Your task to perform on an android device: toggle notifications settings in the gmail app Image 0: 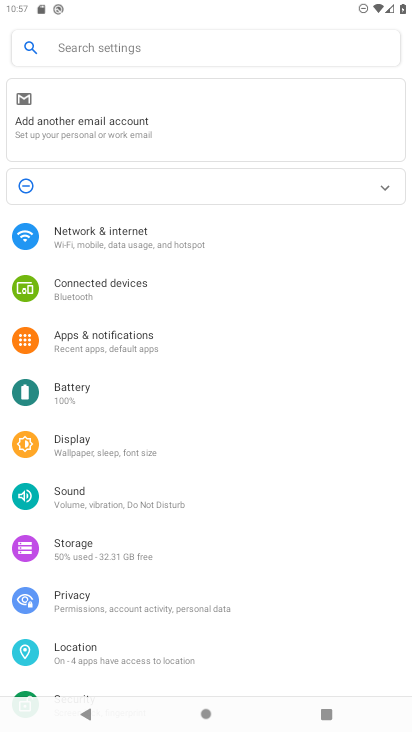
Step 0: press home button
Your task to perform on an android device: toggle notifications settings in the gmail app Image 1: 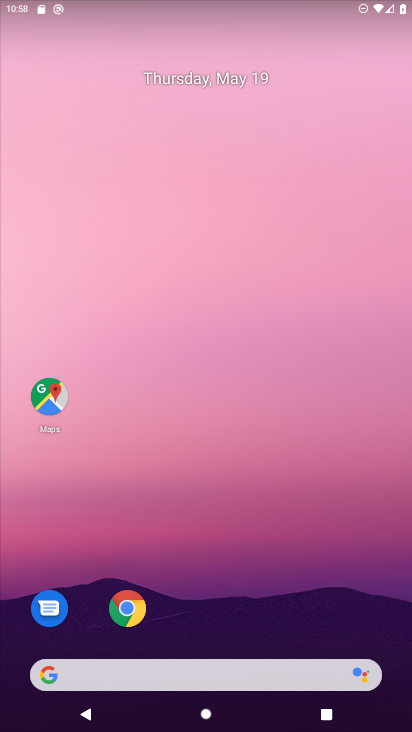
Step 1: drag from (406, 706) to (336, 233)
Your task to perform on an android device: toggle notifications settings in the gmail app Image 2: 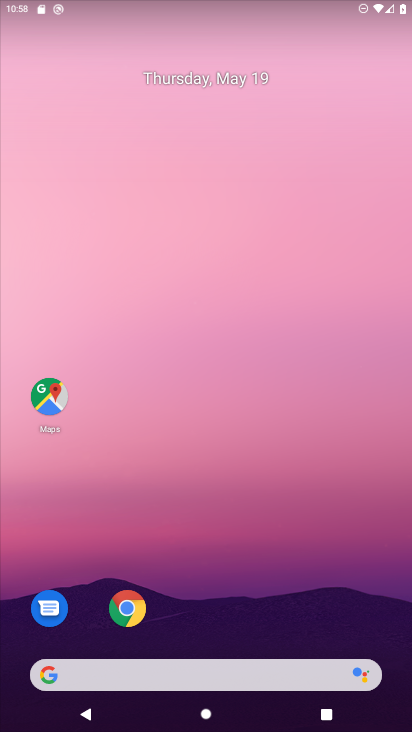
Step 2: drag from (394, 705) to (357, 166)
Your task to perform on an android device: toggle notifications settings in the gmail app Image 3: 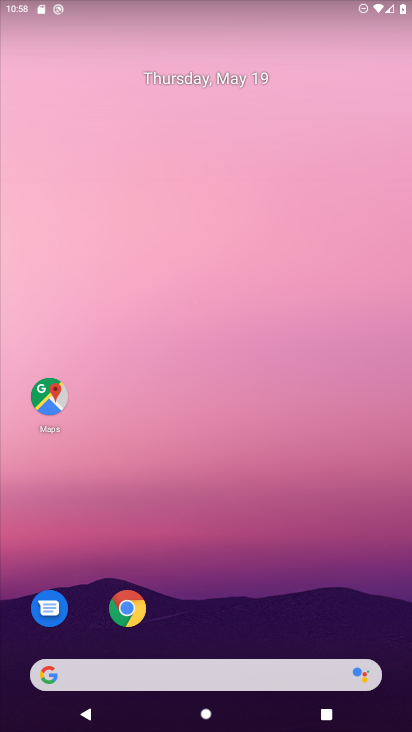
Step 3: drag from (394, 711) to (381, 159)
Your task to perform on an android device: toggle notifications settings in the gmail app Image 4: 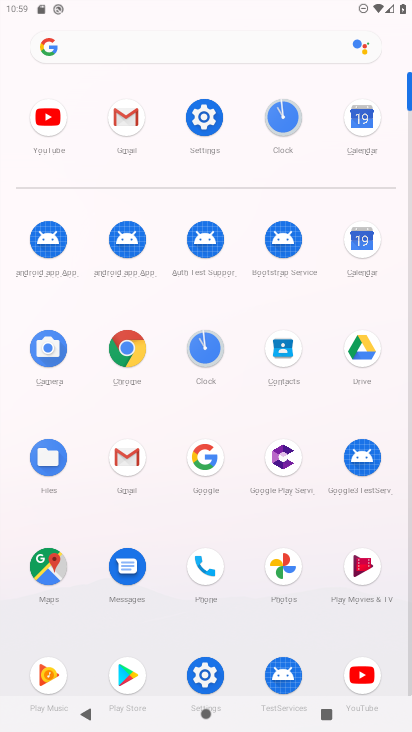
Step 4: click (192, 457)
Your task to perform on an android device: toggle notifications settings in the gmail app Image 5: 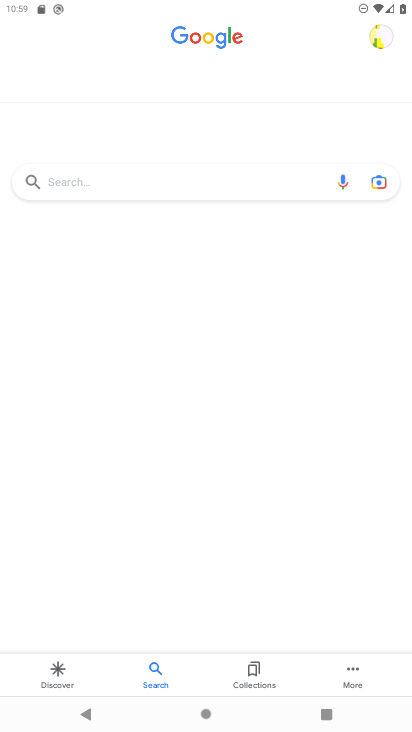
Step 5: press back button
Your task to perform on an android device: toggle notifications settings in the gmail app Image 6: 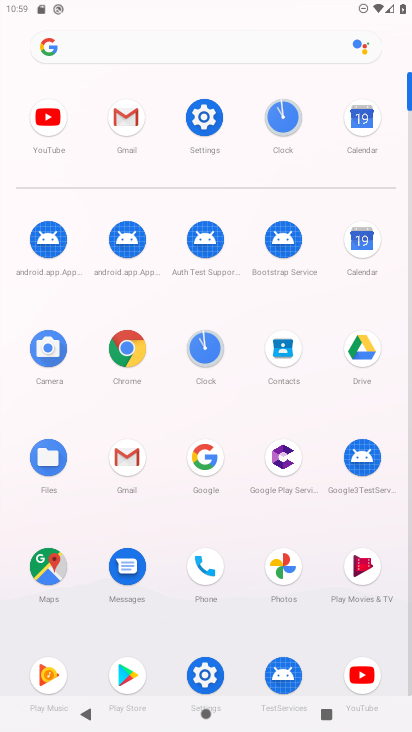
Step 6: click (124, 119)
Your task to perform on an android device: toggle notifications settings in the gmail app Image 7: 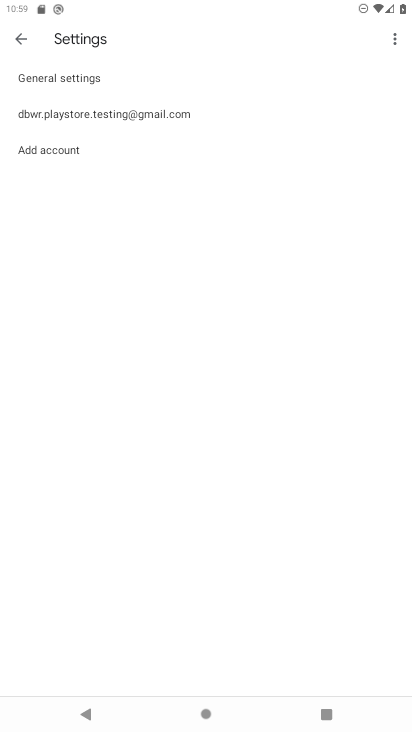
Step 7: click (30, 79)
Your task to perform on an android device: toggle notifications settings in the gmail app Image 8: 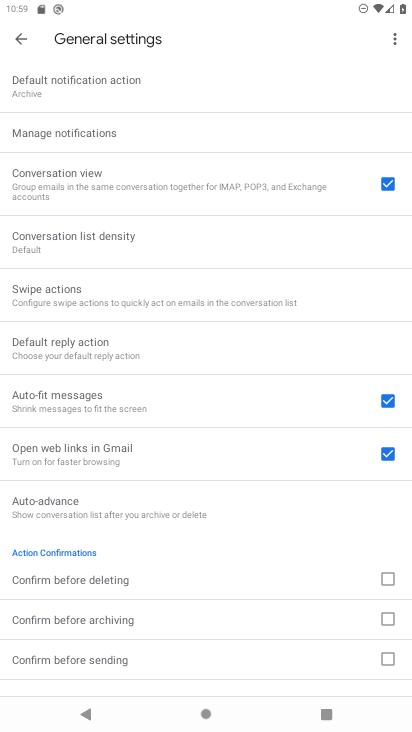
Step 8: click (47, 135)
Your task to perform on an android device: toggle notifications settings in the gmail app Image 9: 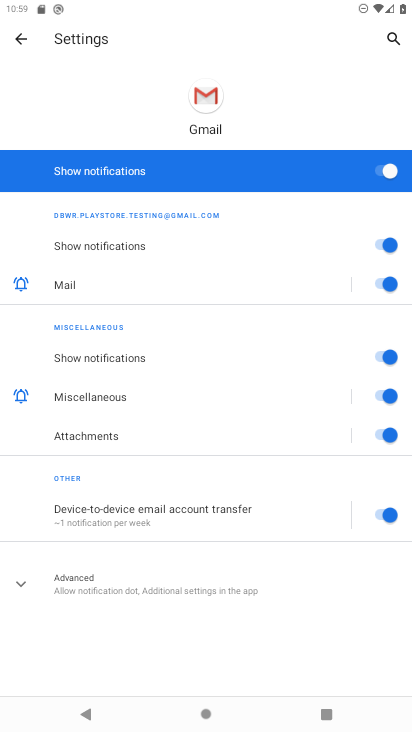
Step 9: click (382, 170)
Your task to perform on an android device: toggle notifications settings in the gmail app Image 10: 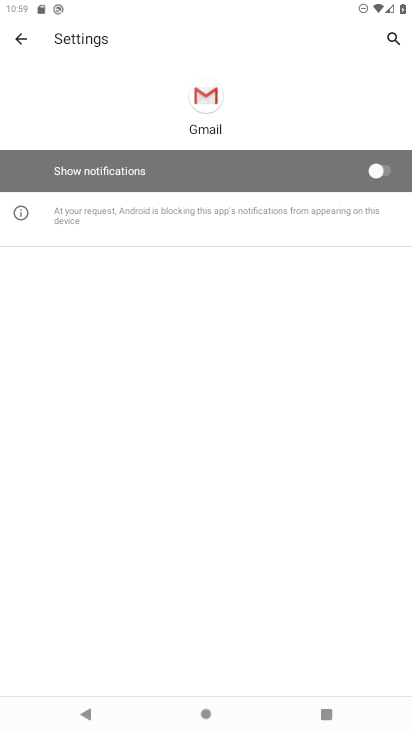
Step 10: task complete